Your task to perform on an android device: open chrome privacy settings Image 0: 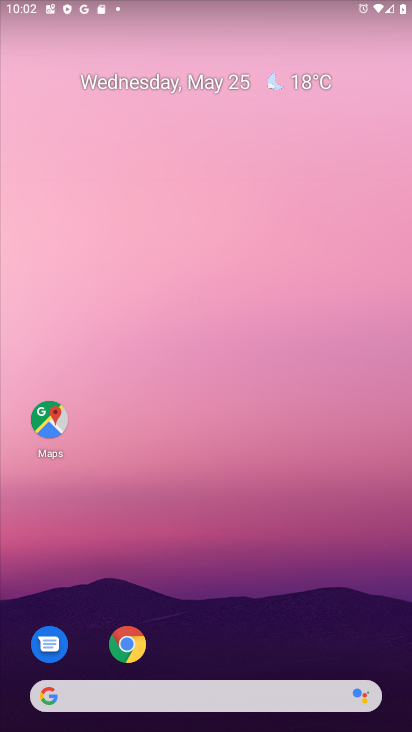
Step 0: click (123, 639)
Your task to perform on an android device: open chrome privacy settings Image 1: 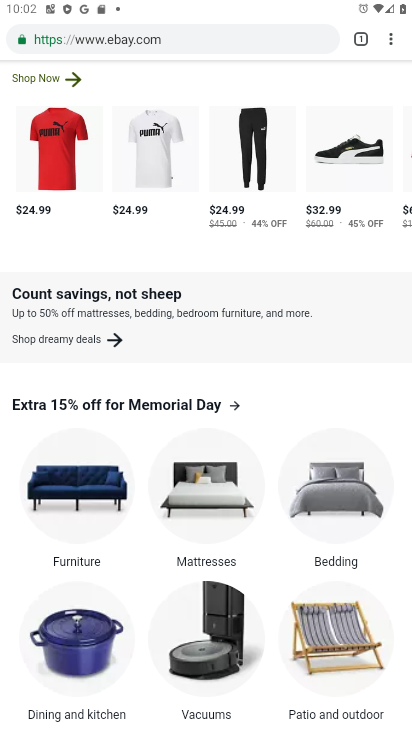
Step 1: click (389, 38)
Your task to perform on an android device: open chrome privacy settings Image 2: 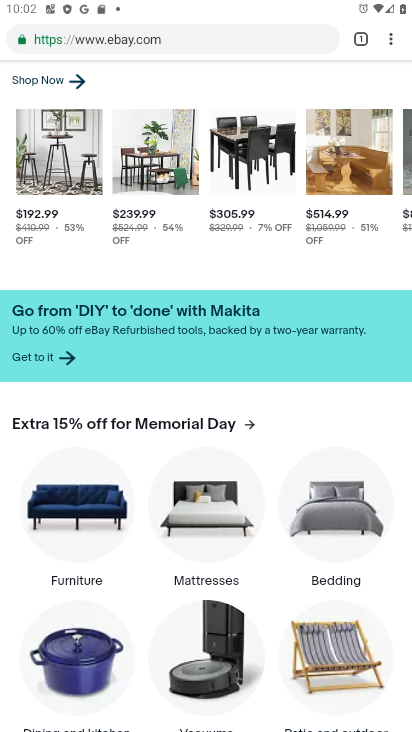
Step 2: click (390, 35)
Your task to perform on an android device: open chrome privacy settings Image 3: 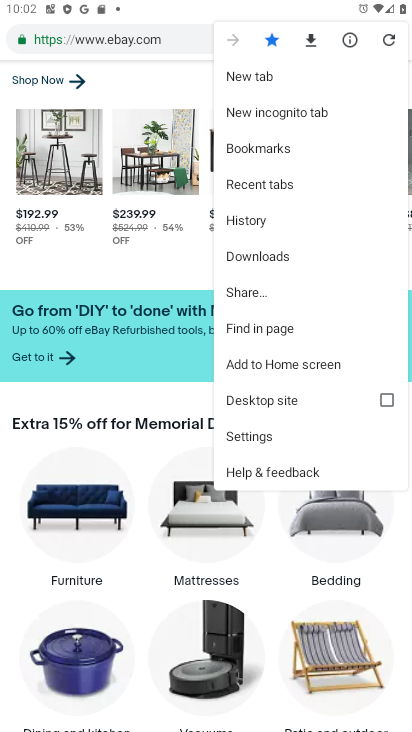
Step 3: click (279, 432)
Your task to perform on an android device: open chrome privacy settings Image 4: 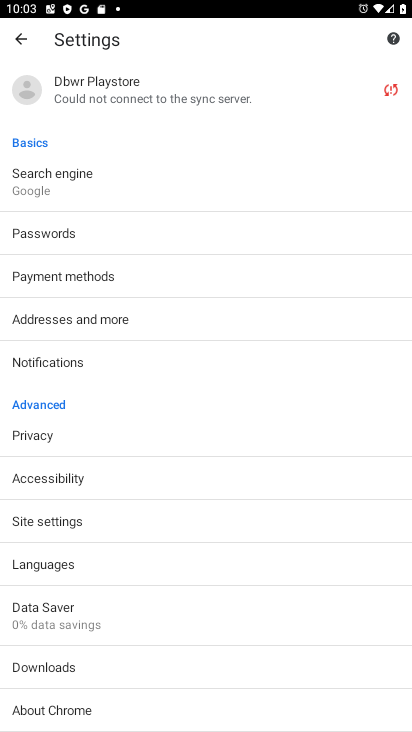
Step 4: drag from (116, 652) to (122, 360)
Your task to perform on an android device: open chrome privacy settings Image 5: 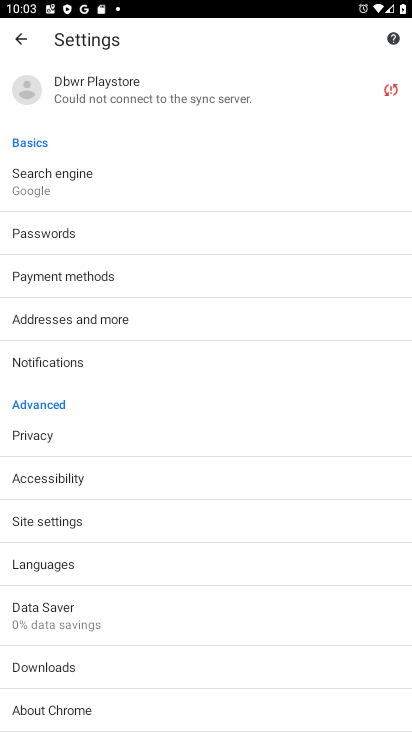
Step 5: click (62, 436)
Your task to perform on an android device: open chrome privacy settings Image 6: 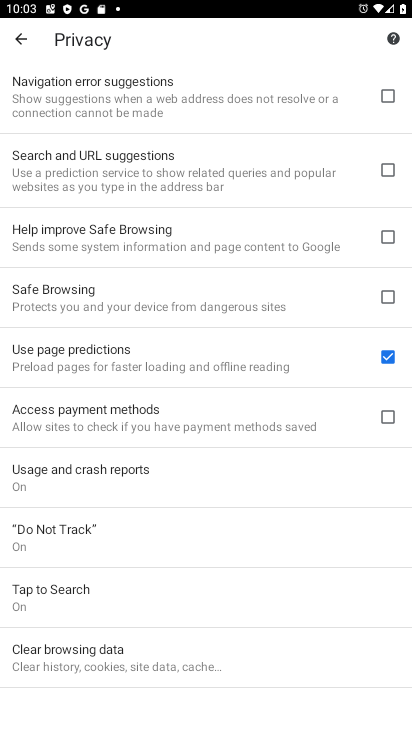
Step 6: task complete